Your task to perform on an android device: add a contact Image 0: 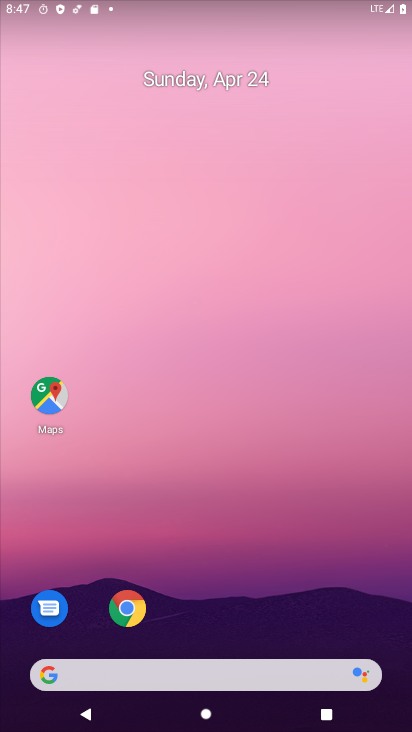
Step 0: drag from (274, 580) to (281, 110)
Your task to perform on an android device: add a contact Image 1: 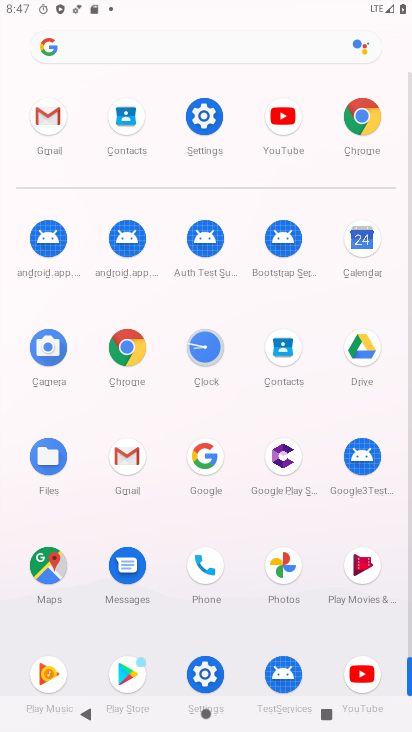
Step 1: click (286, 354)
Your task to perform on an android device: add a contact Image 2: 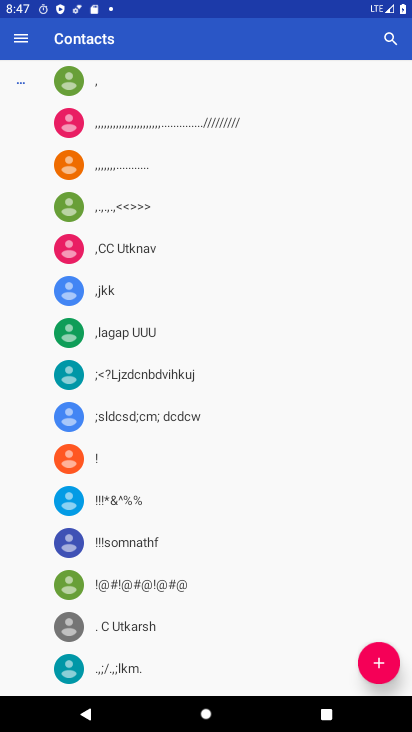
Step 2: click (376, 657)
Your task to perform on an android device: add a contact Image 3: 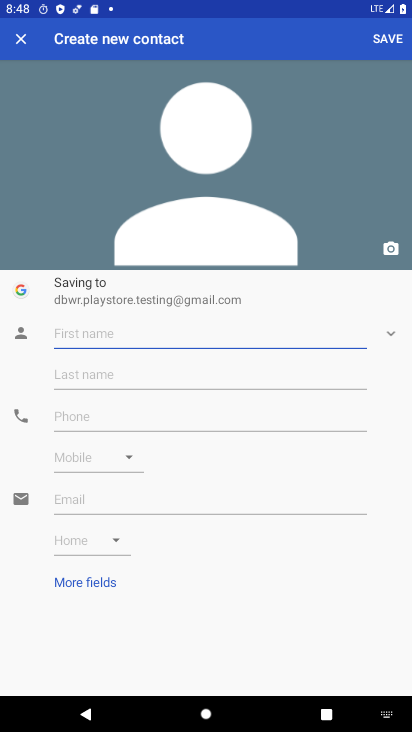
Step 3: type "BabaBuldozer"
Your task to perform on an android device: add a contact Image 4: 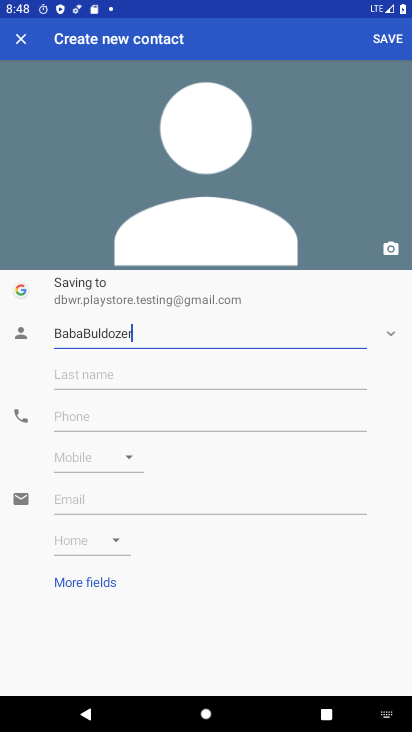
Step 4: click (301, 409)
Your task to perform on an android device: add a contact Image 5: 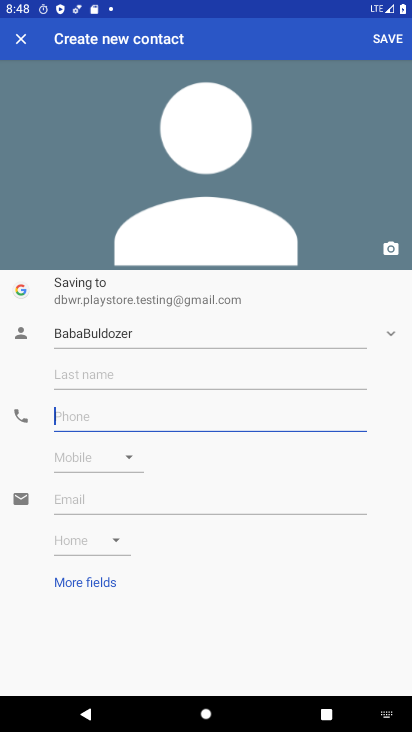
Step 5: type "9152233445566"
Your task to perform on an android device: add a contact Image 6: 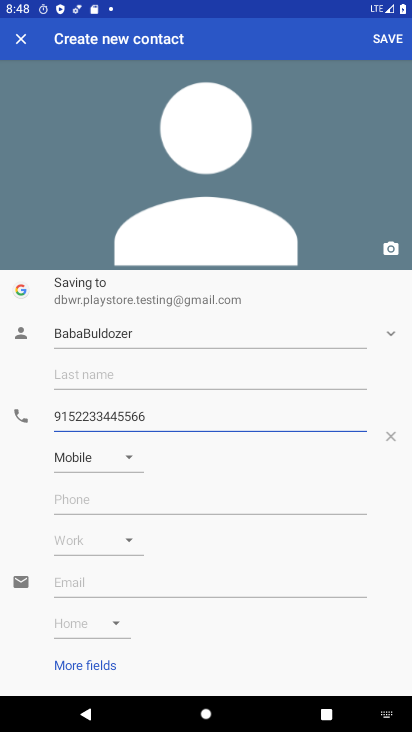
Step 6: click (395, 37)
Your task to perform on an android device: add a contact Image 7: 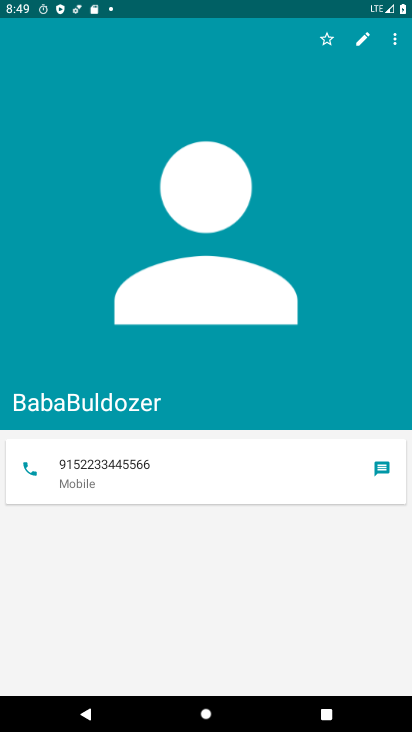
Step 7: task complete